Your task to perform on an android device: remove spam from my inbox in the gmail app Image 0: 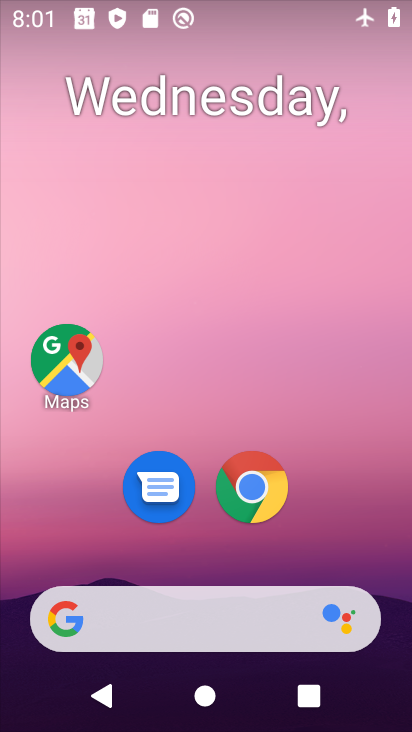
Step 0: drag from (370, 580) to (359, 65)
Your task to perform on an android device: remove spam from my inbox in the gmail app Image 1: 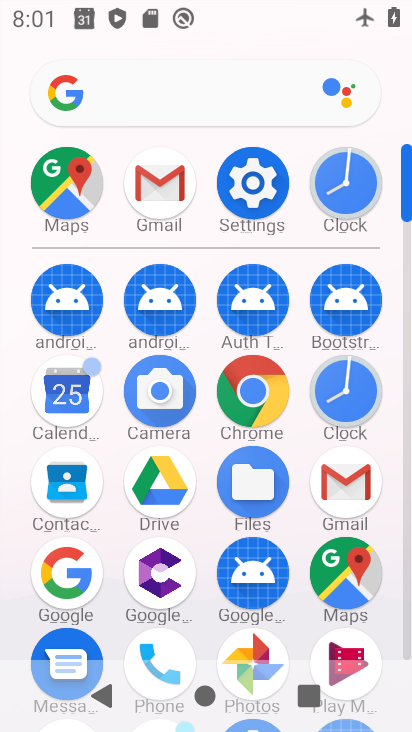
Step 1: click (161, 179)
Your task to perform on an android device: remove spam from my inbox in the gmail app Image 2: 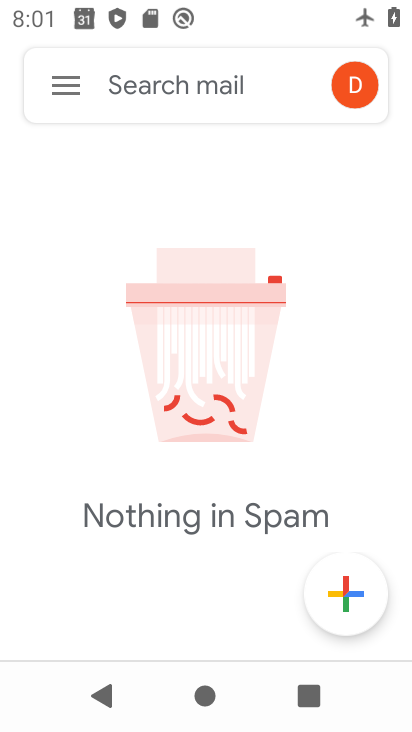
Step 2: task complete